Your task to perform on an android device: install app "Nova Launcher" Image 0: 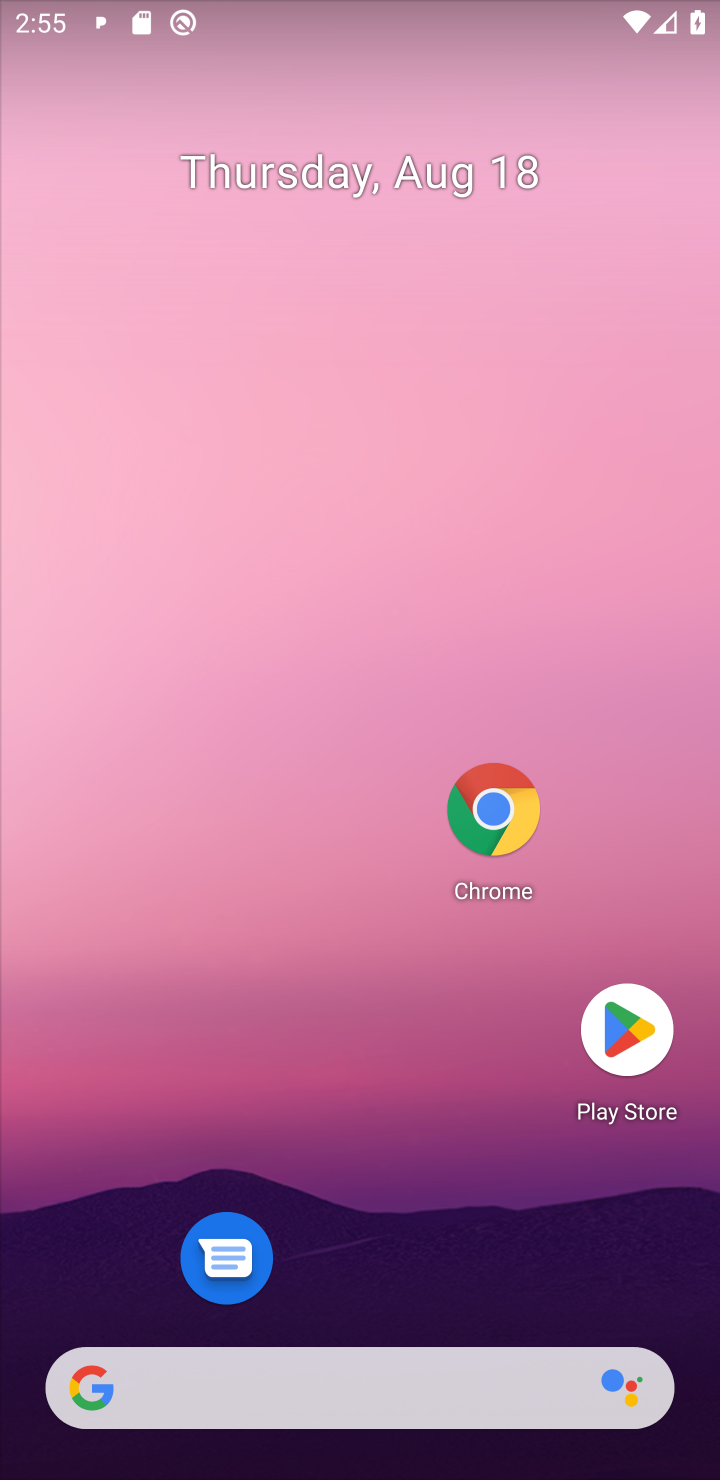
Step 0: click (387, 460)
Your task to perform on an android device: install app "Nova Launcher" Image 1: 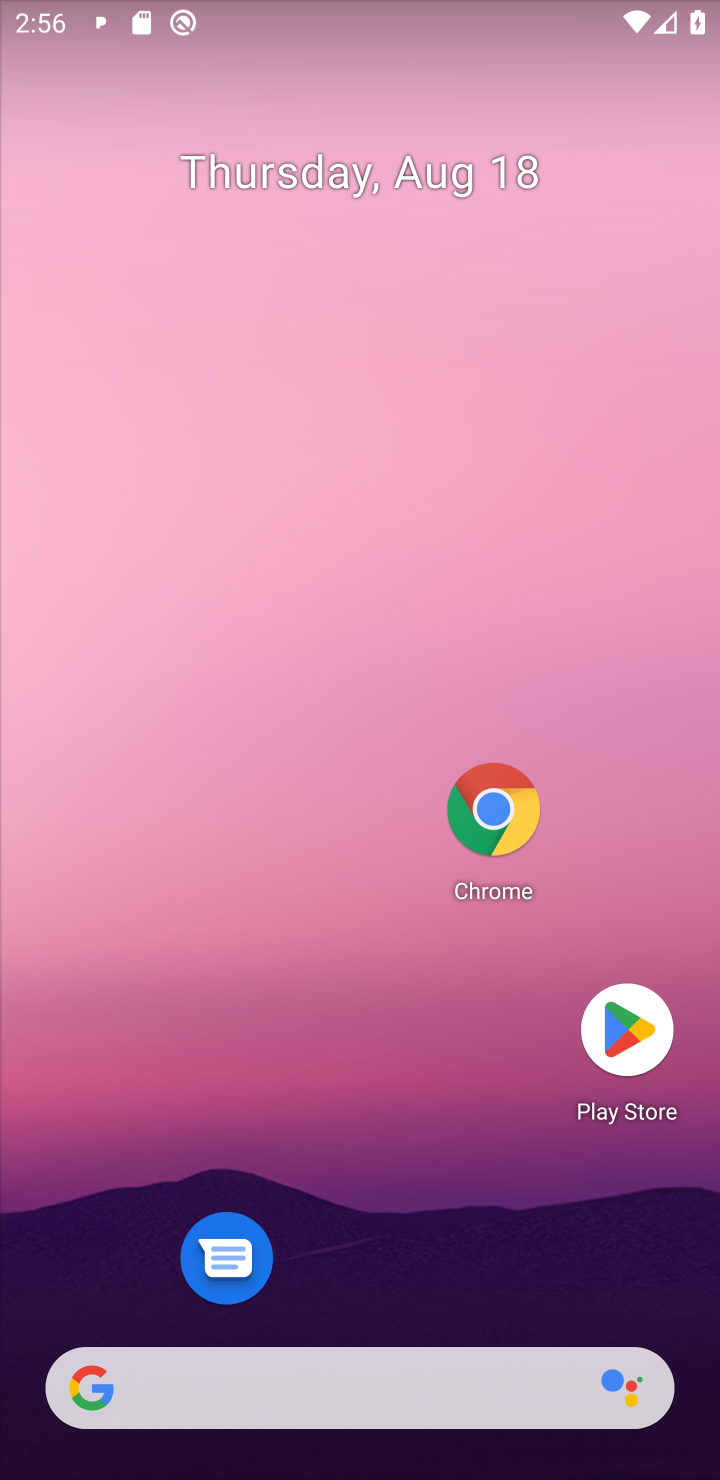
Step 1: drag from (259, 1184) to (298, 418)
Your task to perform on an android device: install app "Nova Launcher" Image 2: 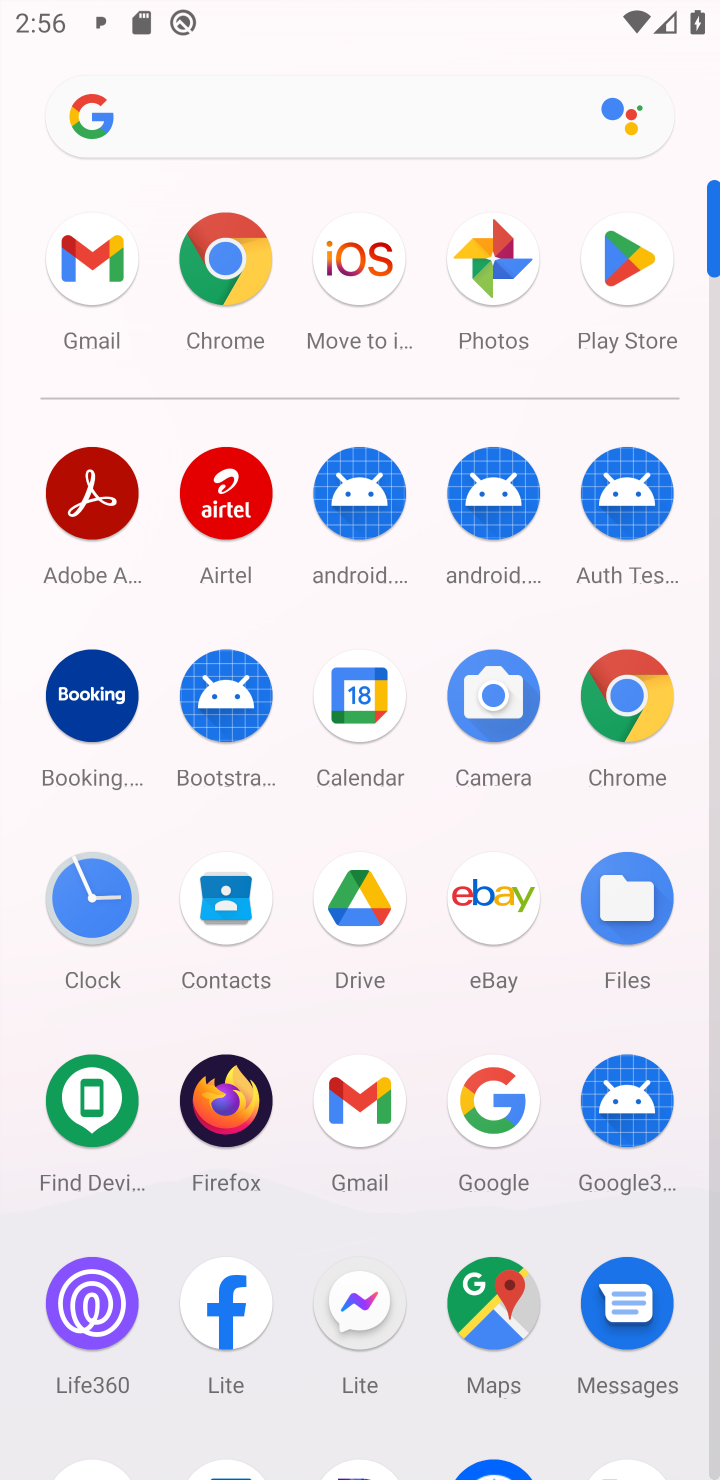
Step 2: click (604, 259)
Your task to perform on an android device: install app "Nova Launcher" Image 3: 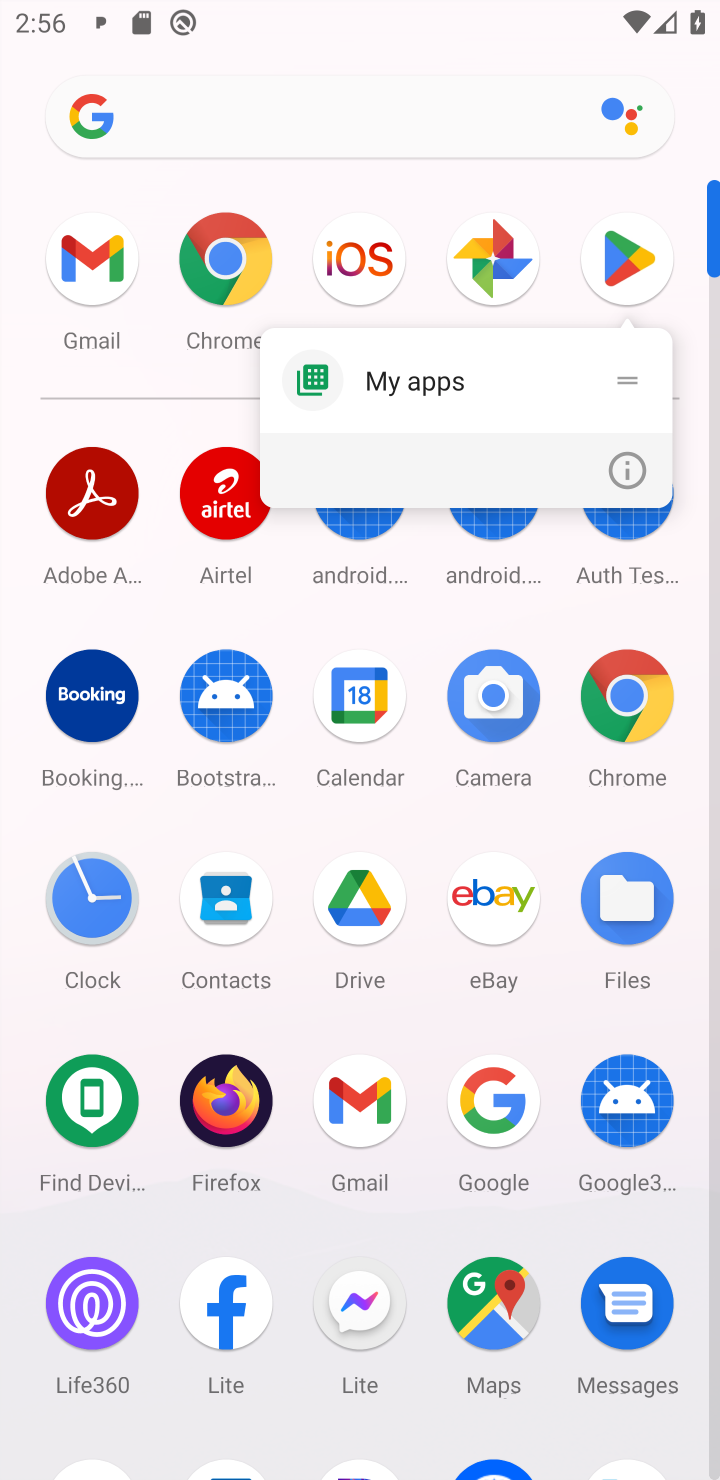
Step 3: click (620, 281)
Your task to perform on an android device: install app "Nova Launcher" Image 4: 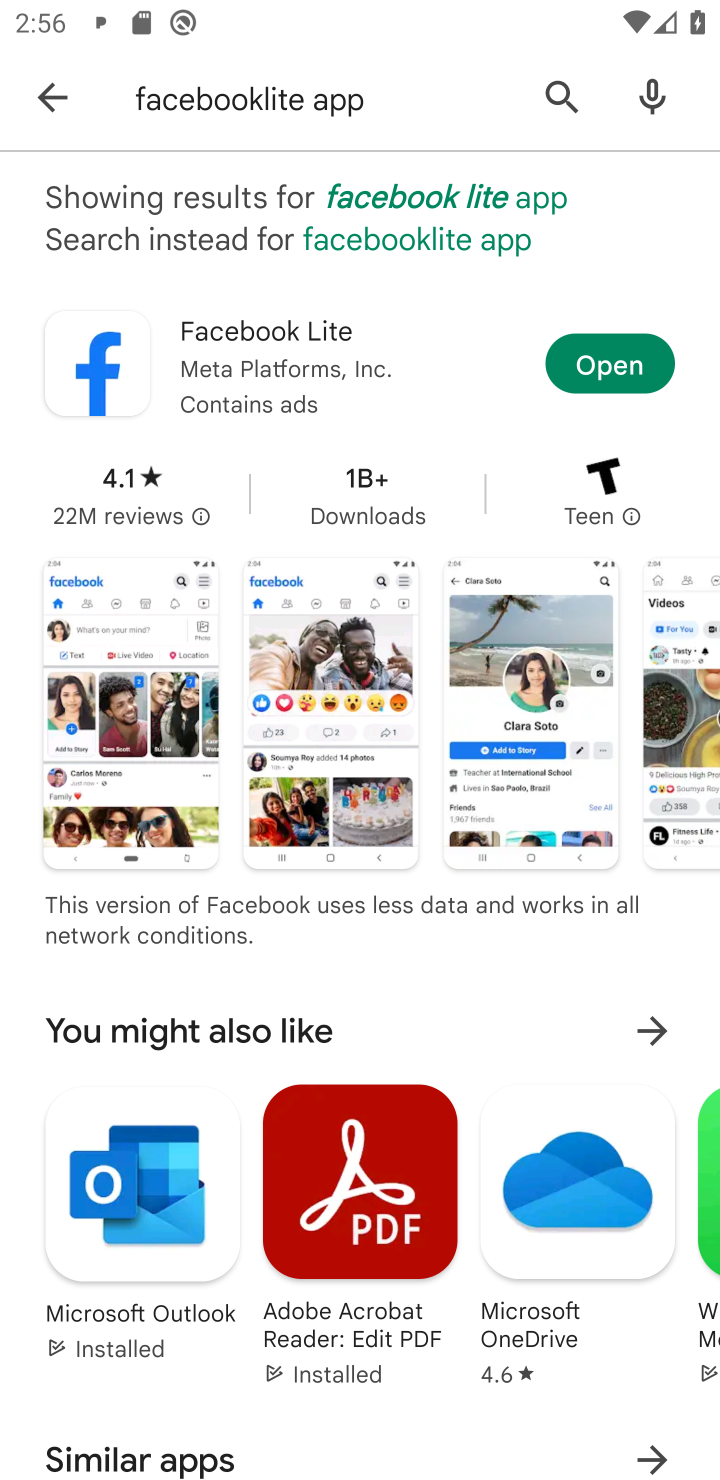
Step 4: click (550, 108)
Your task to perform on an android device: install app "Nova Launcher" Image 5: 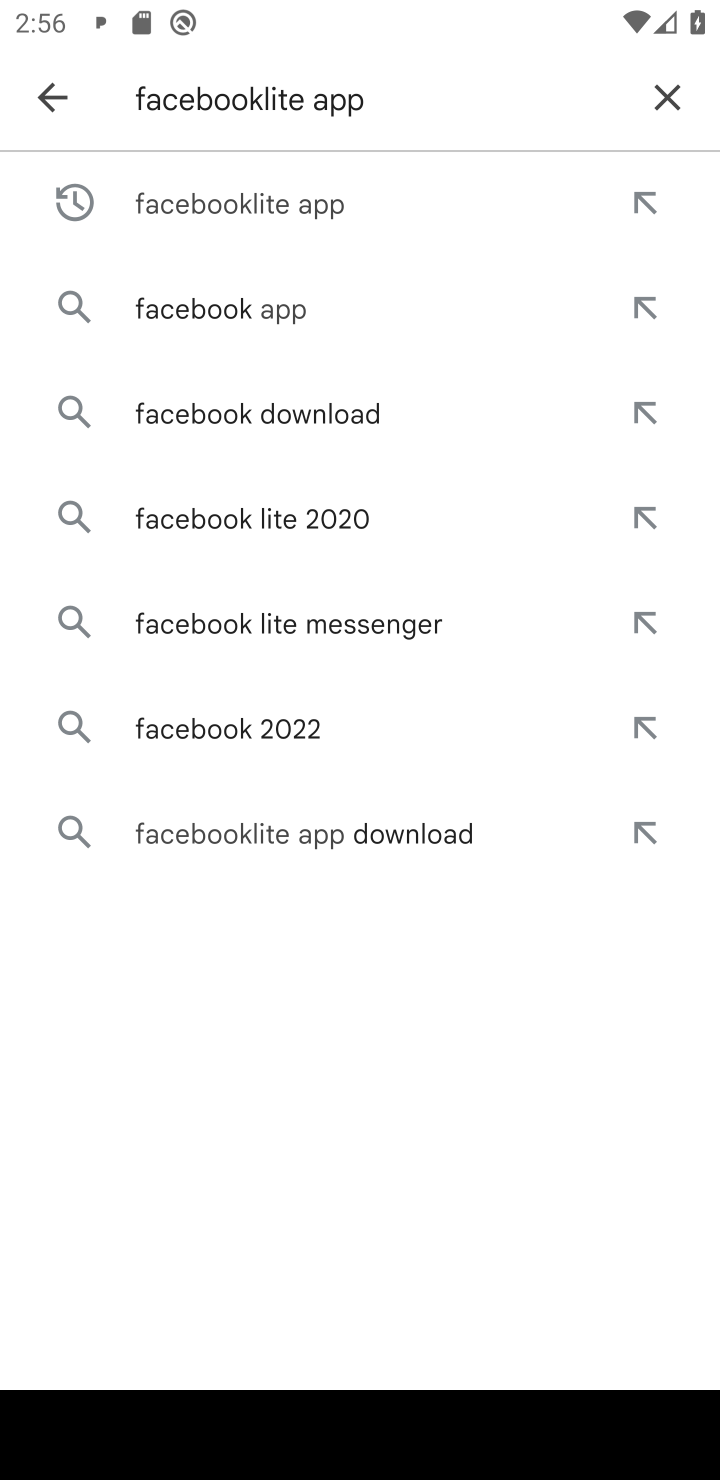
Step 5: click (682, 83)
Your task to perform on an android device: install app "Nova Launcher" Image 6: 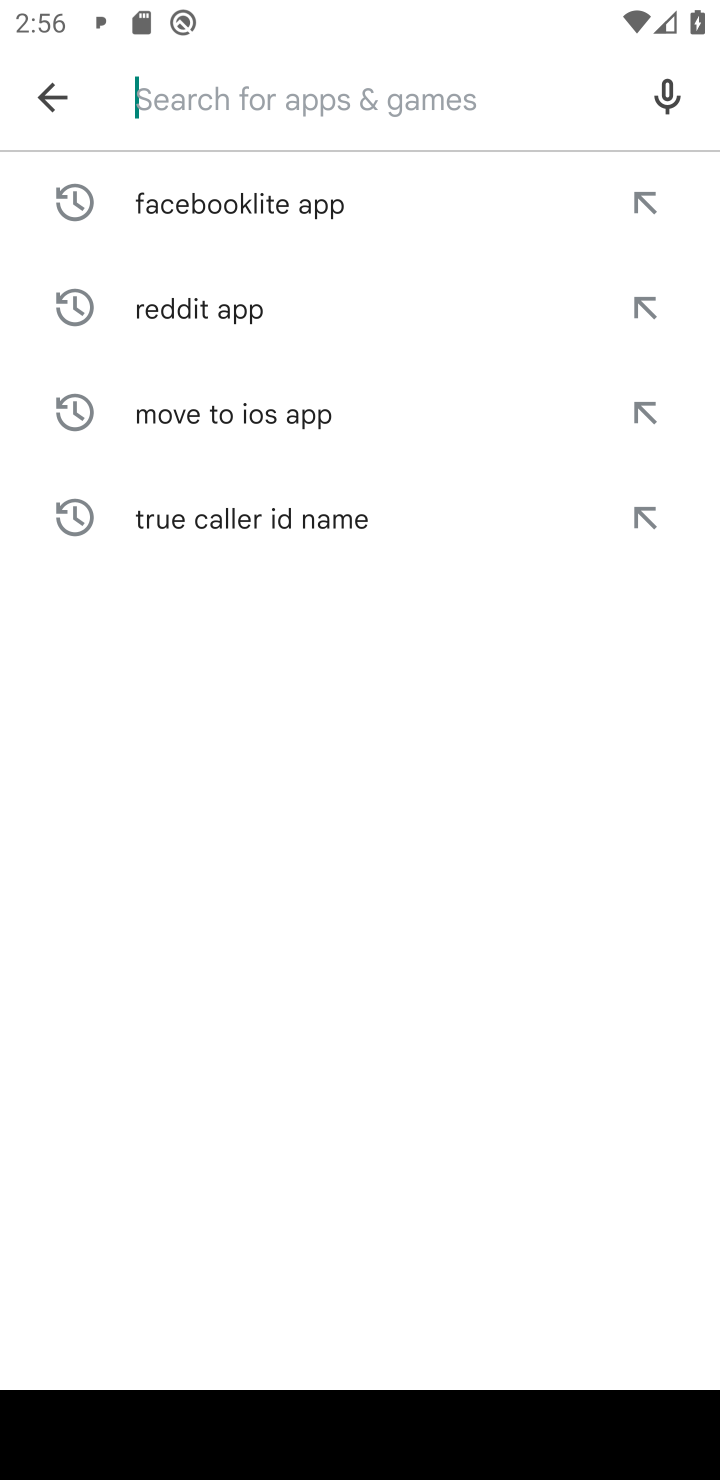
Step 6: click (175, 106)
Your task to perform on an android device: install app "Nova Launcher" Image 7: 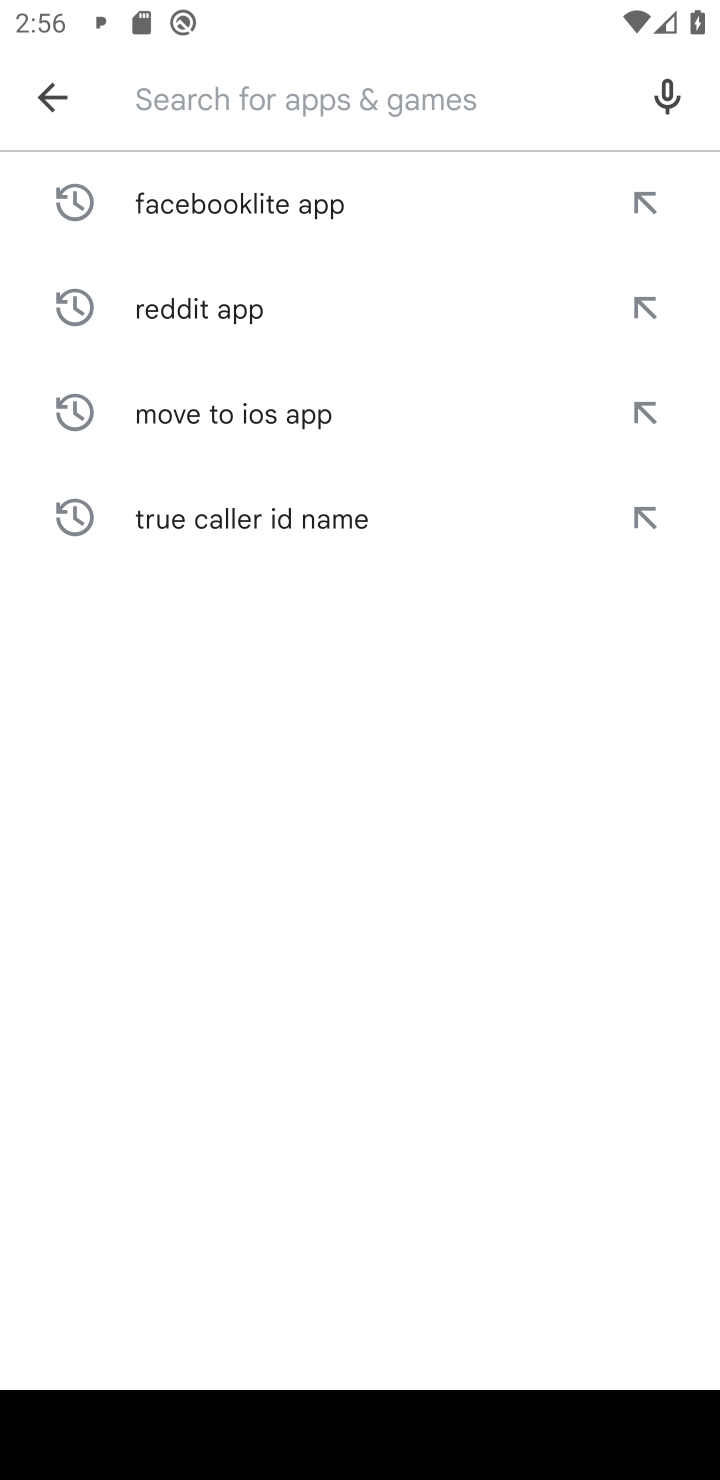
Step 7: type "nova launcher "
Your task to perform on an android device: install app "Nova Launcher" Image 8: 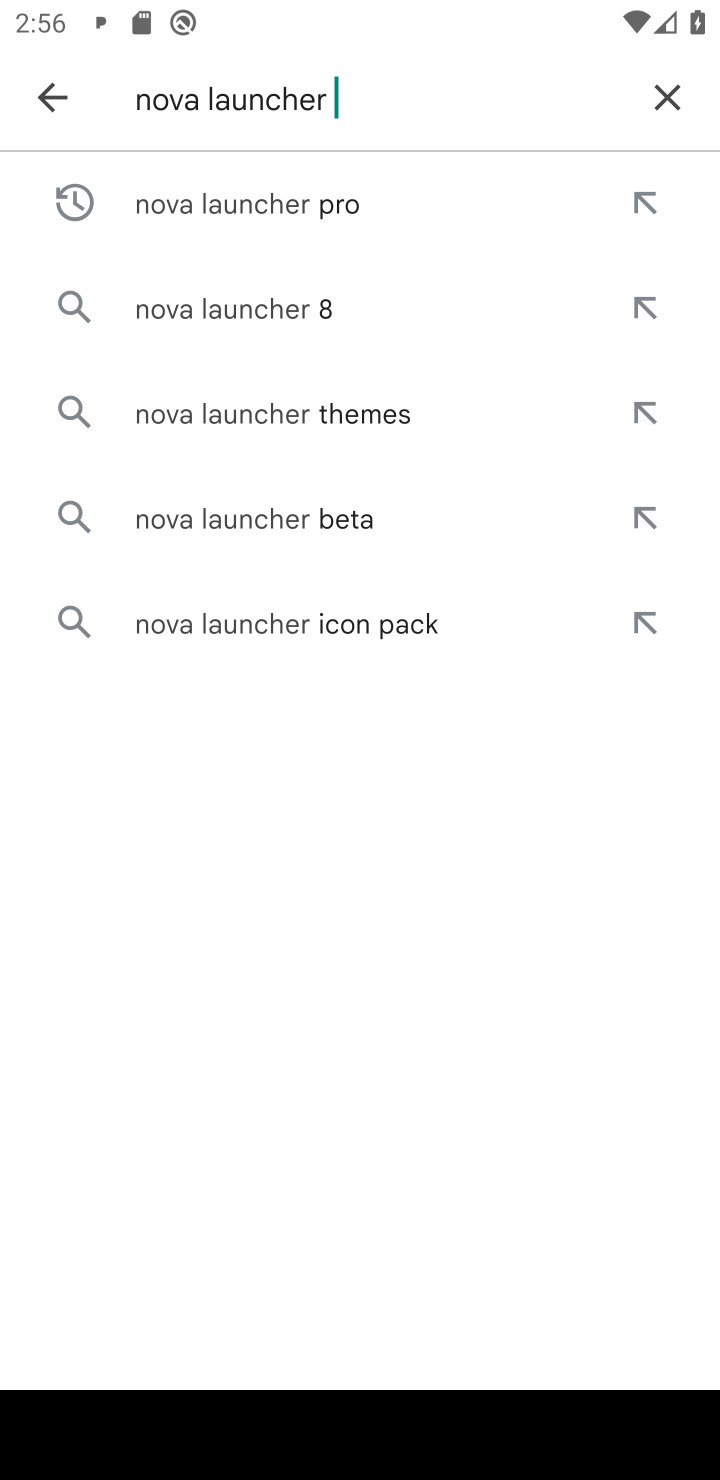
Step 8: click (221, 218)
Your task to perform on an android device: install app "Nova Launcher" Image 9: 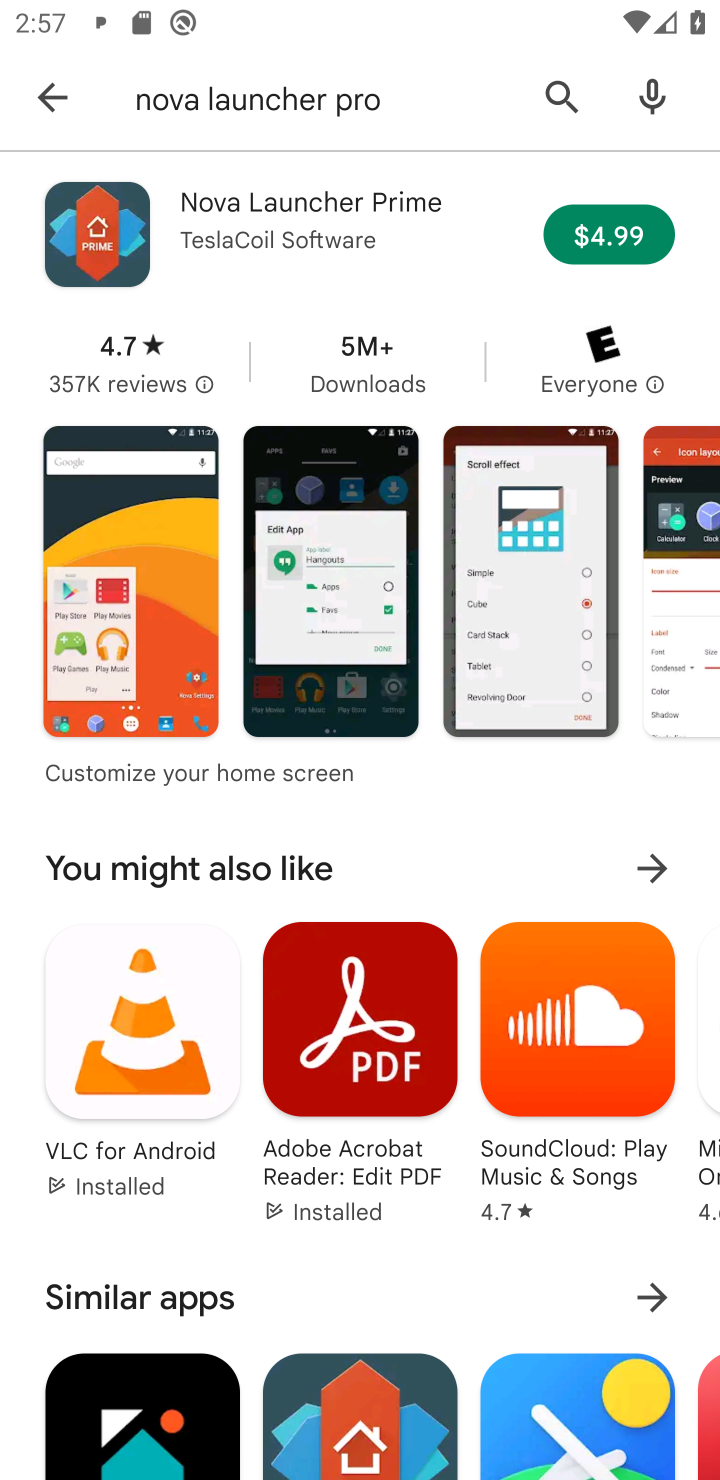
Step 9: task complete